Your task to perform on an android device: delete the emails in spam in the gmail app Image 0: 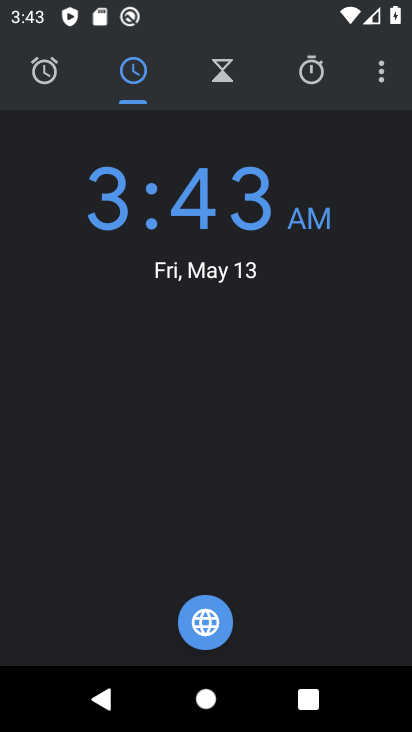
Step 0: press home button
Your task to perform on an android device: delete the emails in spam in the gmail app Image 1: 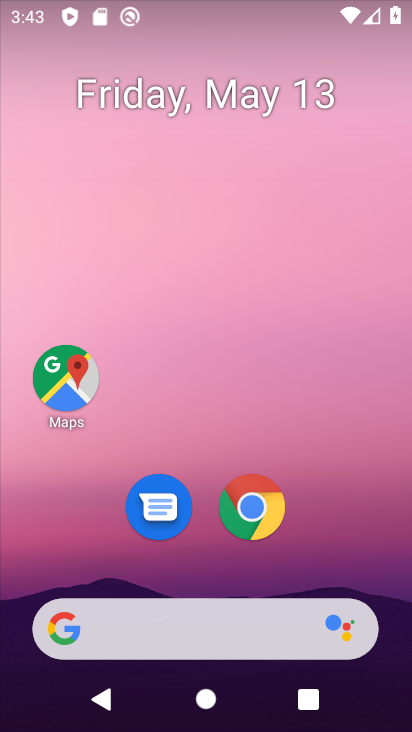
Step 1: drag from (194, 656) to (308, 13)
Your task to perform on an android device: delete the emails in spam in the gmail app Image 2: 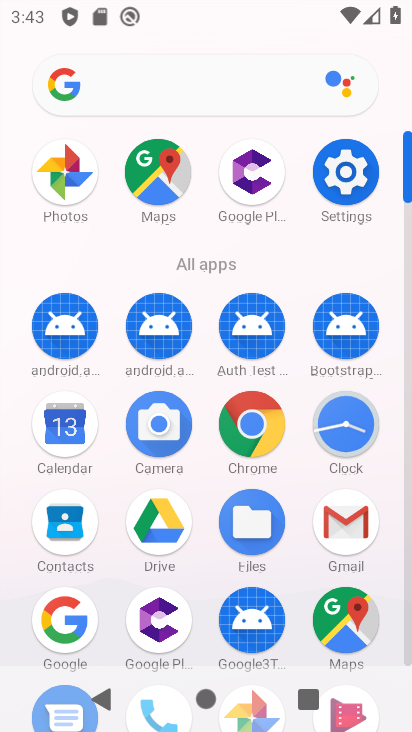
Step 2: click (325, 520)
Your task to perform on an android device: delete the emails in spam in the gmail app Image 3: 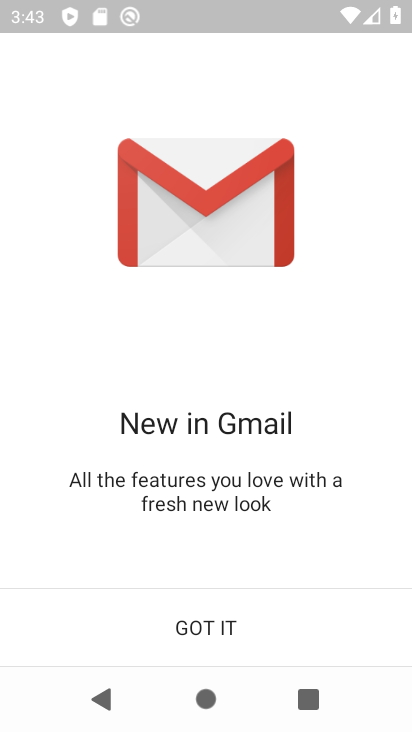
Step 3: click (278, 622)
Your task to perform on an android device: delete the emails in spam in the gmail app Image 4: 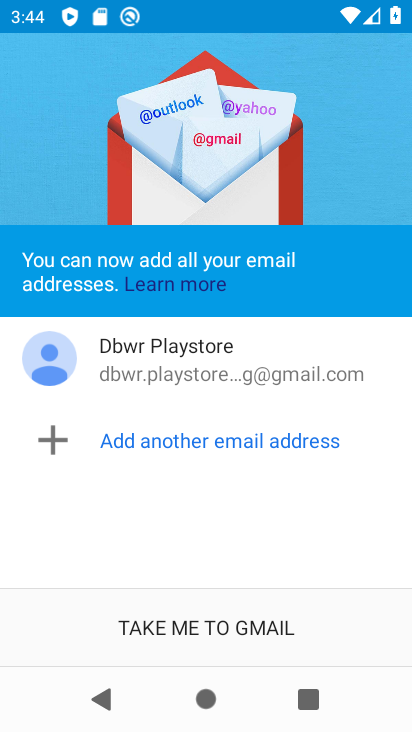
Step 4: click (250, 637)
Your task to perform on an android device: delete the emails in spam in the gmail app Image 5: 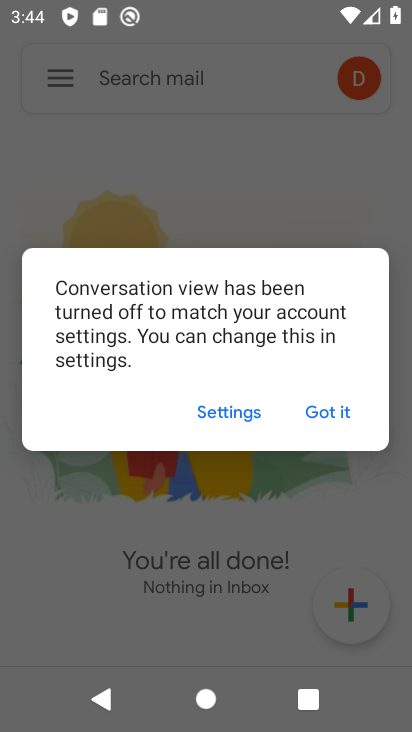
Step 5: press back button
Your task to perform on an android device: delete the emails in spam in the gmail app Image 6: 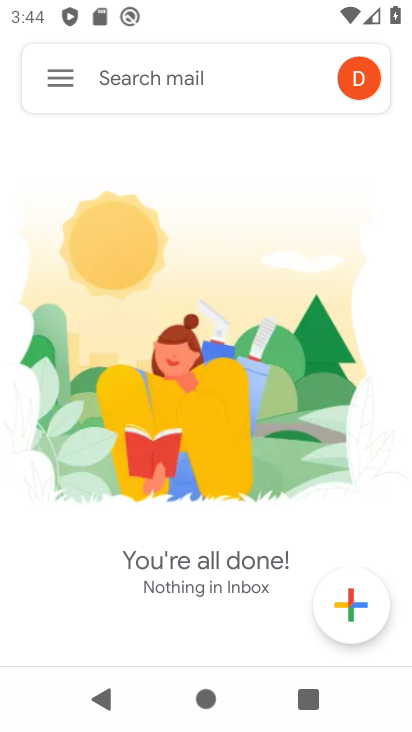
Step 6: click (59, 67)
Your task to perform on an android device: delete the emails in spam in the gmail app Image 7: 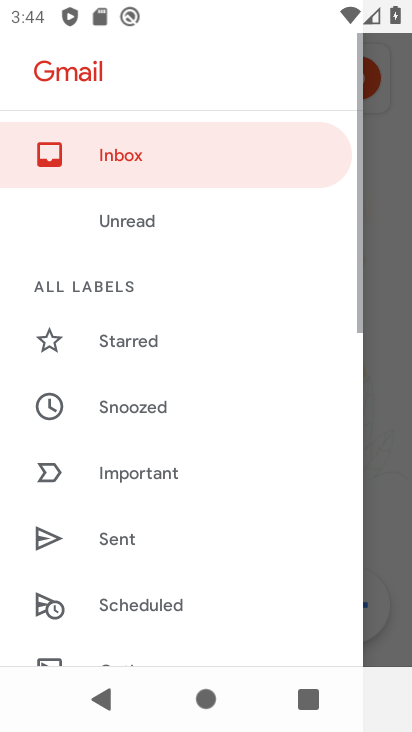
Step 7: drag from (173, 605) to (185, 164)
Your task to perform on an android device: delete the emails in spam in the gmail app Image 8: 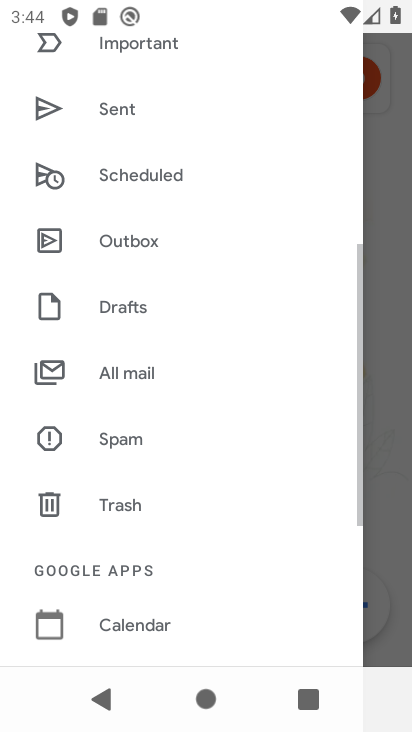
Step 8: click (137, 441)
Your task to perform on an android device: delete the emails in spam in the gmail app Image 9: 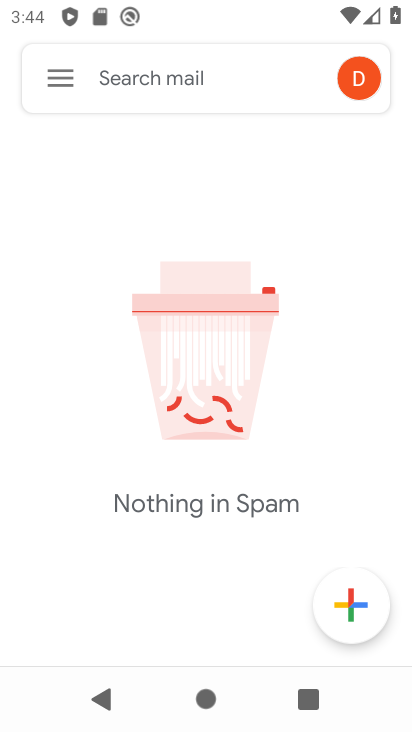
Step 9: task complete